Your task to perform on an android device: Open Chrome and go to settings Image 0: 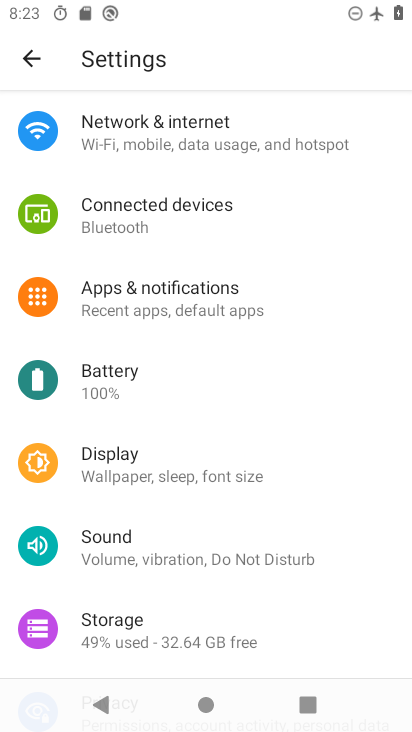
Step 0: press home button
Your task to perform on an android device: Open Chrome and go to settings Image 1: 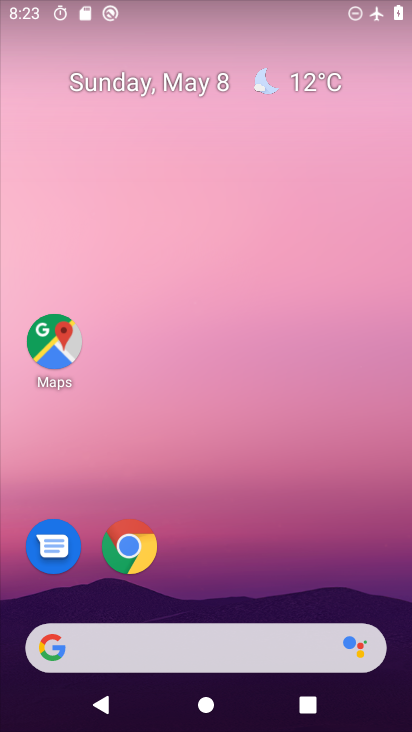
Step 1: click (134, 542)
Your task to perform on an android device: Open Chrome and go to settings Image 2: 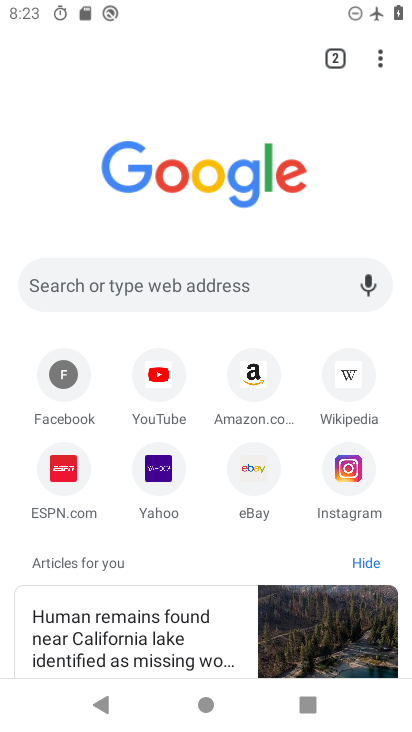
Step 2: click (379, 51)
Your task to perform on an android device: Open Chrome and go to settings Image 3: 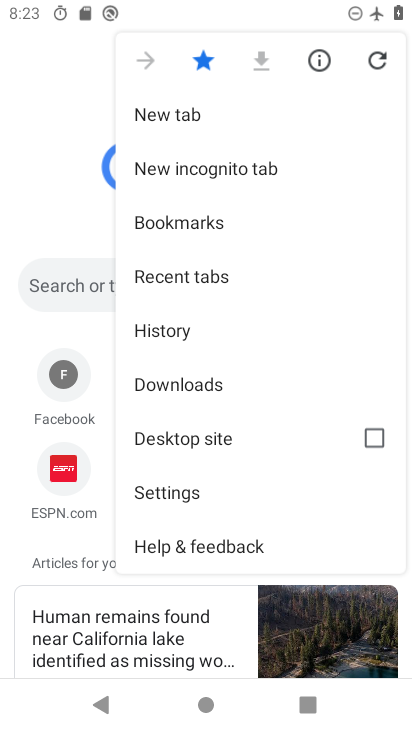
Step 3: click (218, 494)
Your task to perform on an android device: Open Chrome and go to settings Image 4: 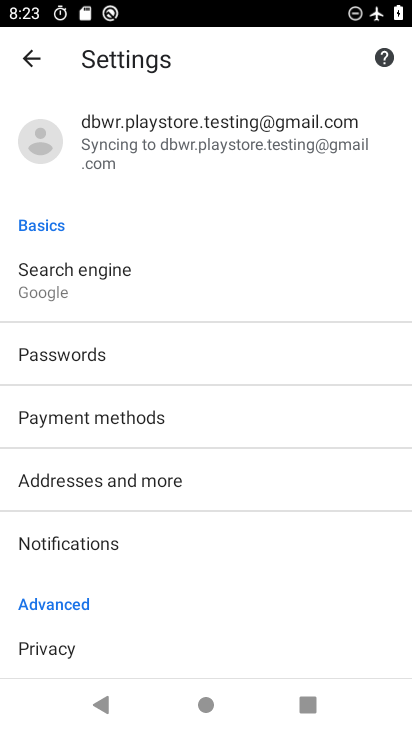
Step 4: task complete